Your task to perform on an android device: add a label to a message in the gmail app Image 0: 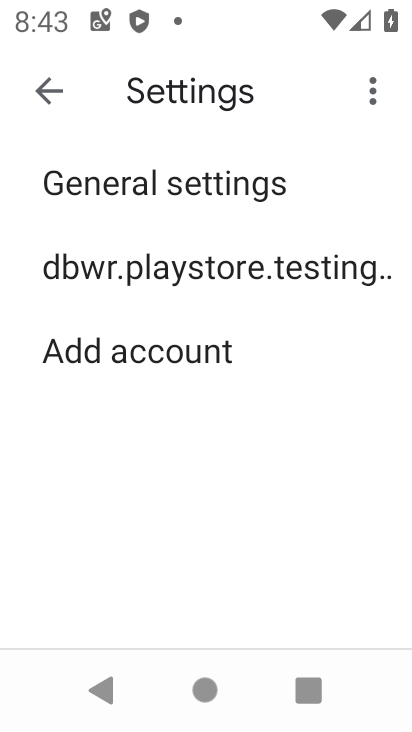
Step 0: press home button
Your task to perform on an android device: add a label to a message in the gmail app Image 1: 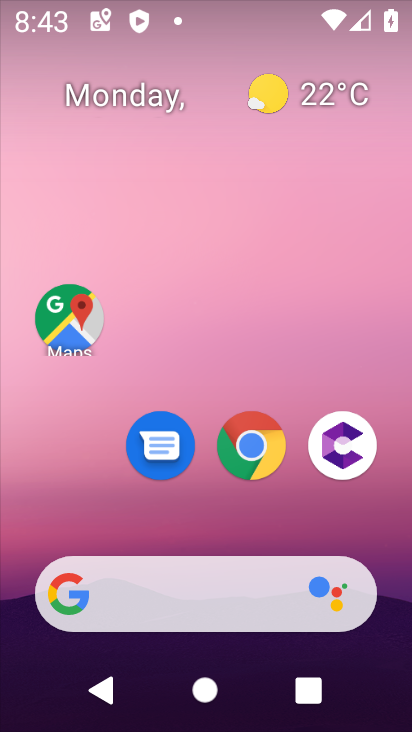
Step 1: drag from (327, 332) to (233, 15)
Your task to perform on an android device: add a label to a message in the gmail app Image 2: 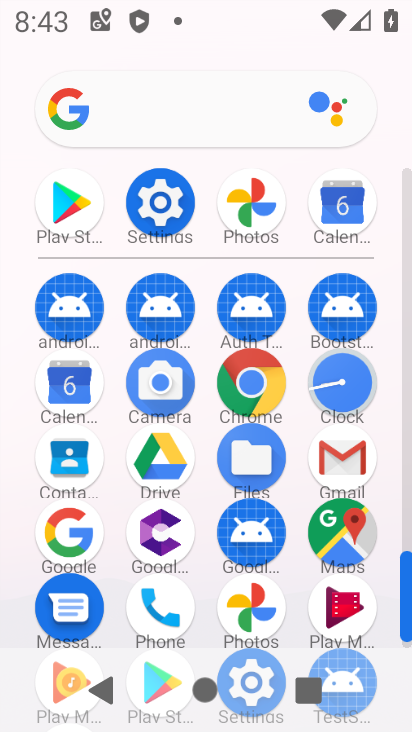
Step 2: click (350, 458)
Your task to perform on an android device: add a label to a message in the gmail app Image 3: 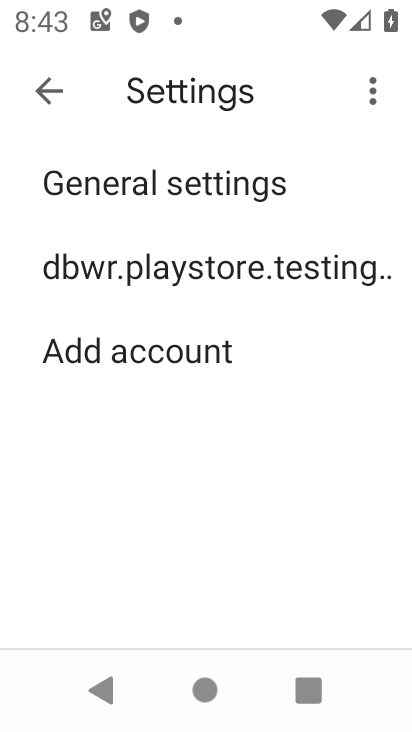
Step 3: click (95, 277)
Your task to perform on an android device: add a label to a message in the gmail app Image 4: 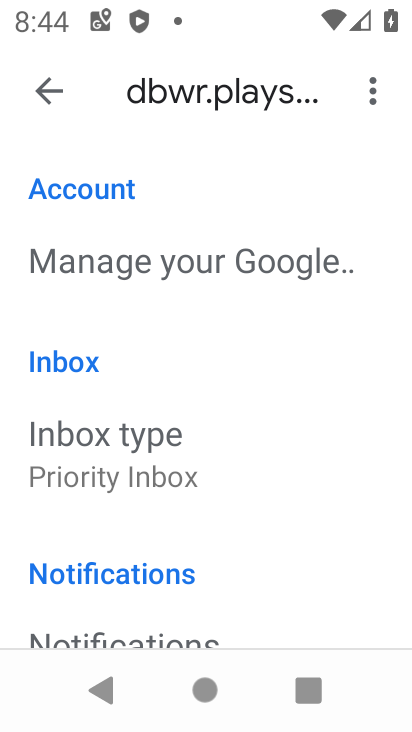
Step 4: click (62, 99)
Your task to perform on an android device: add a label to a message in the gmail app Image 5: 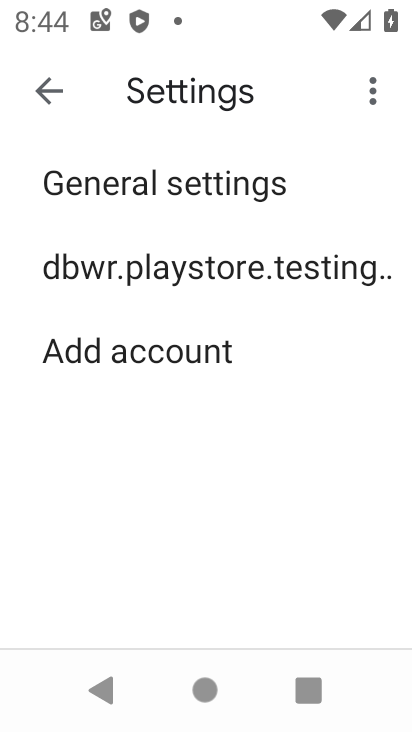
Step 5: click (58, 97)
Your task to perform on an android device: add a label to a message in the gmail app Image 6: 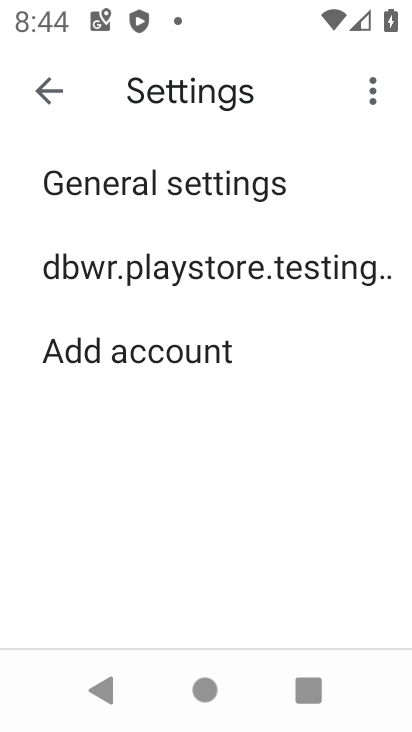
Step 6: click (58, 96)
Your task to perform on an android device: add a label to a message in the gmail app Image 7: 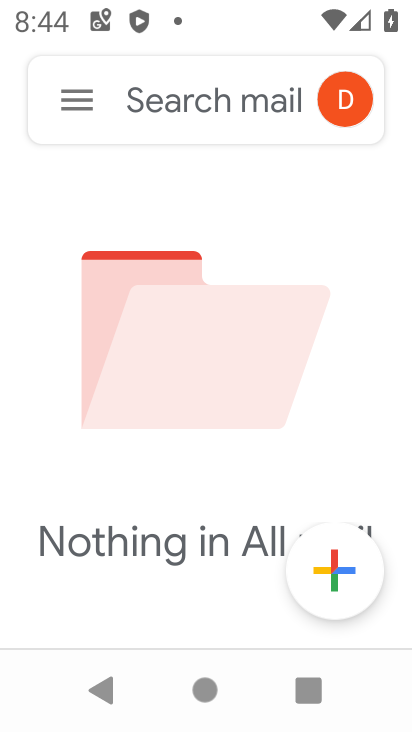
Step 7: task complete